Your task to perform on an android device: add a contact in the contacts app Image 0: 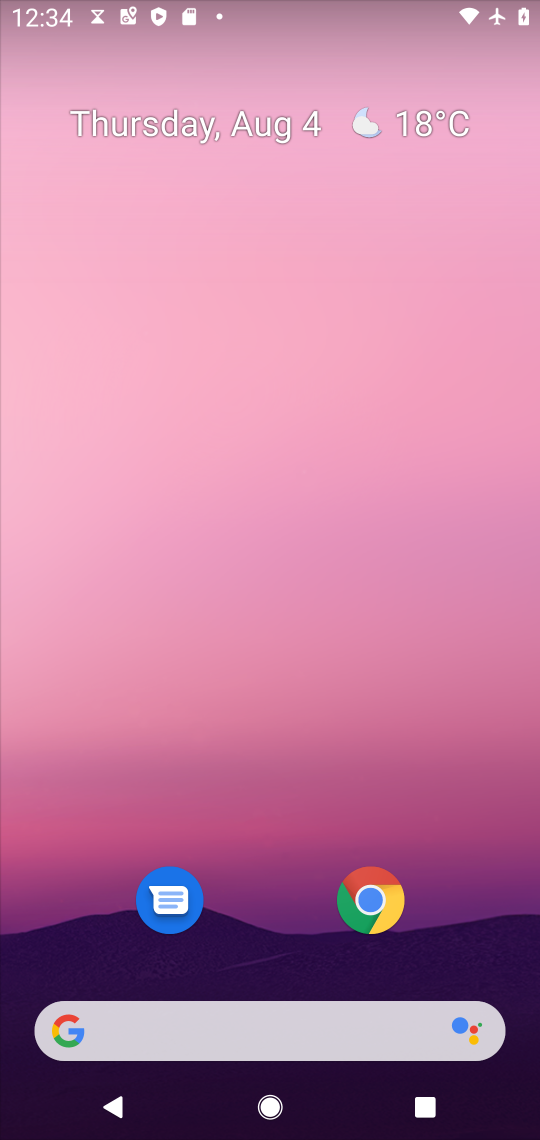
Step 0: press home button
Your task to perform on an android device: add a contact in the contacts app Image 1: 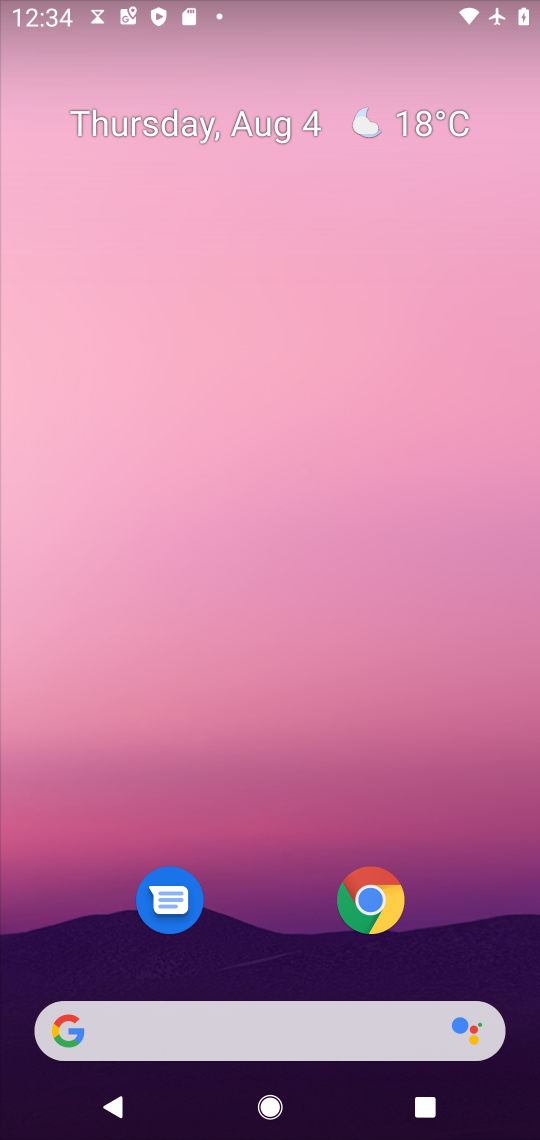
Step 1: drag from (291, 558) to (285, 235)
Your task to perform on an android device: add a contact in the contacts app Image 2: 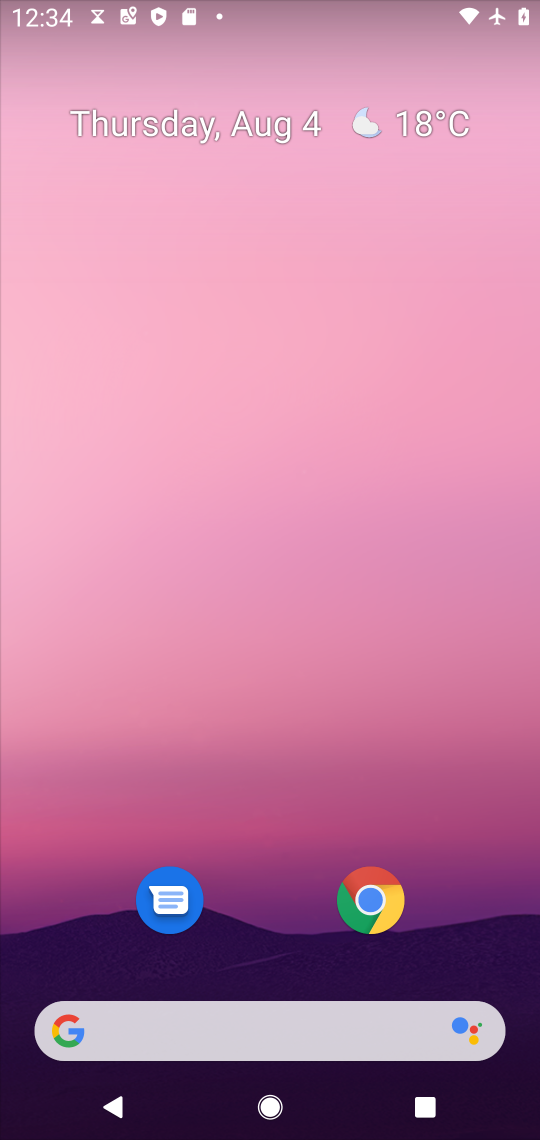
Step 2: drag from (276, 884) to (284, 54)
Your task to perform on an android device: add a contact in the contacts app Image 3: 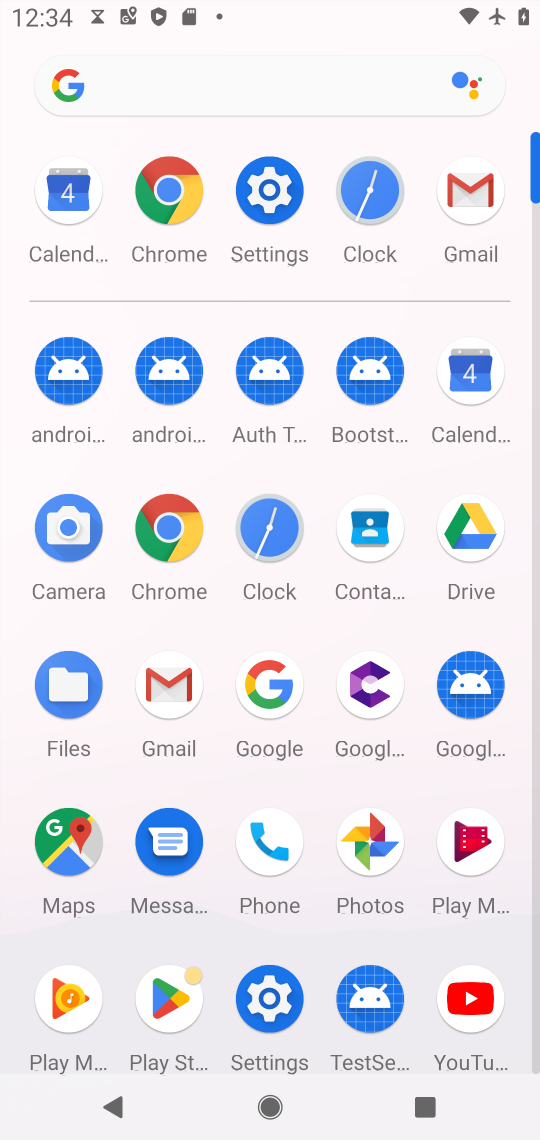
Step 3: click (371, 541)
Your task to perform on an android device: add a contact in the contacts app Image 4: 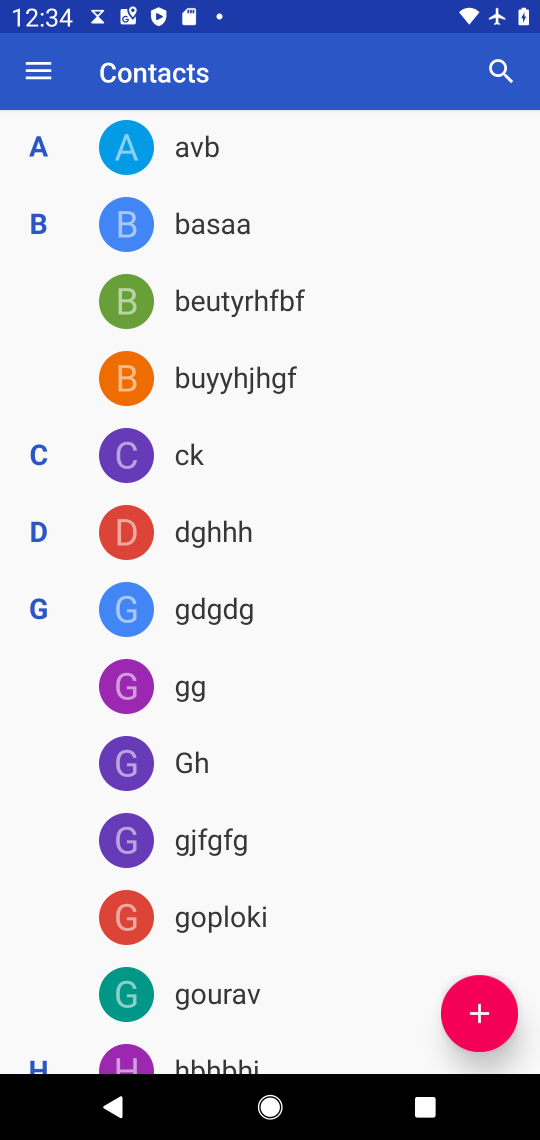
Step 4: click (462, 1030)
Your task to perform on an android device: add a contact in the contacts app Image 5: 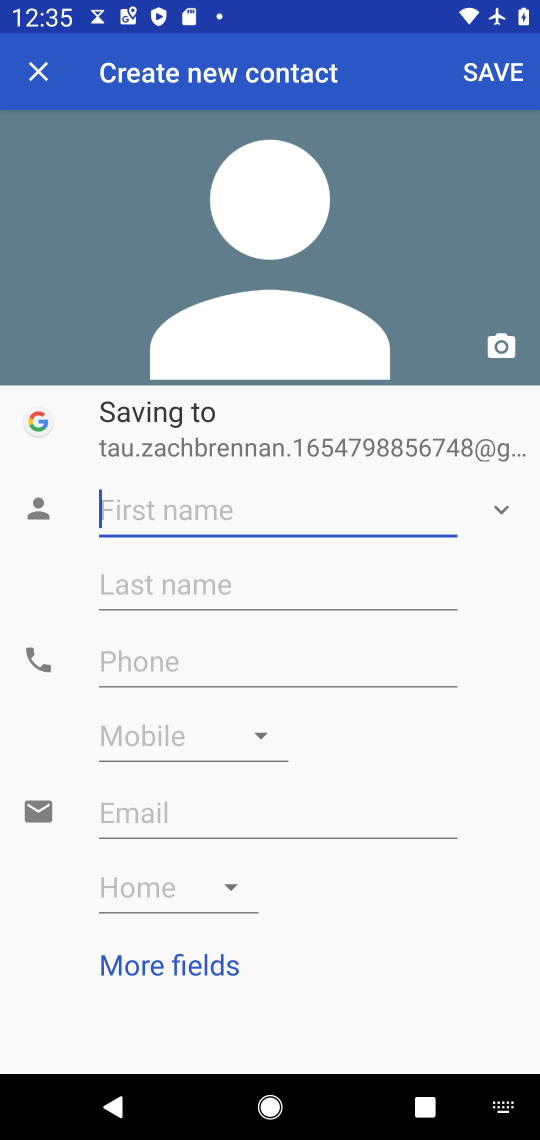
Step 5: type "hjhhhj"
Your task to perform on an android device: add a contact in the contacts app Image 6: 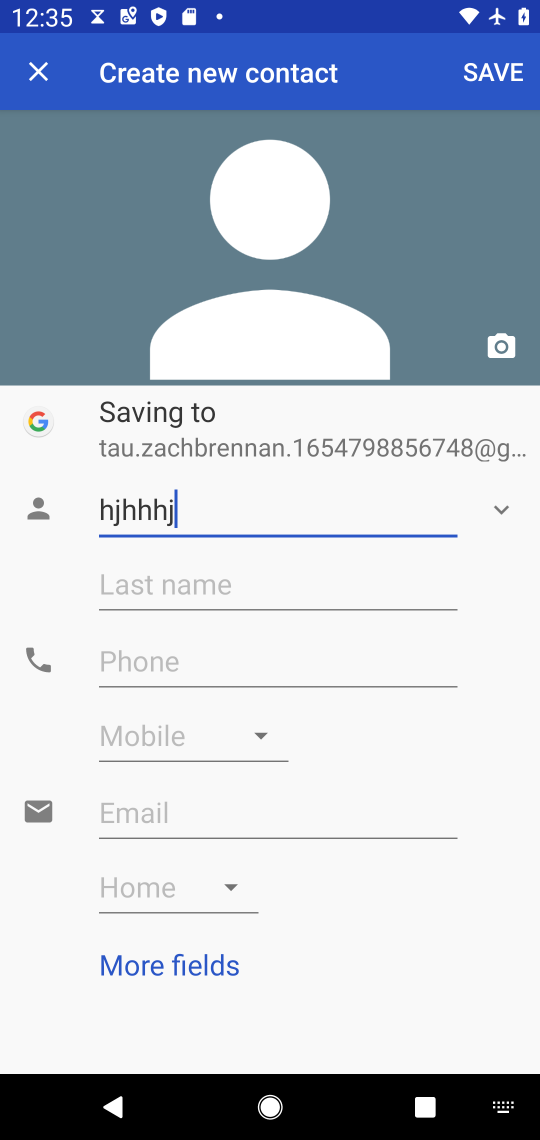
Step 6: click (259, 660)
Your task to perform on an android device: add a contact in the contacts app Image 7: 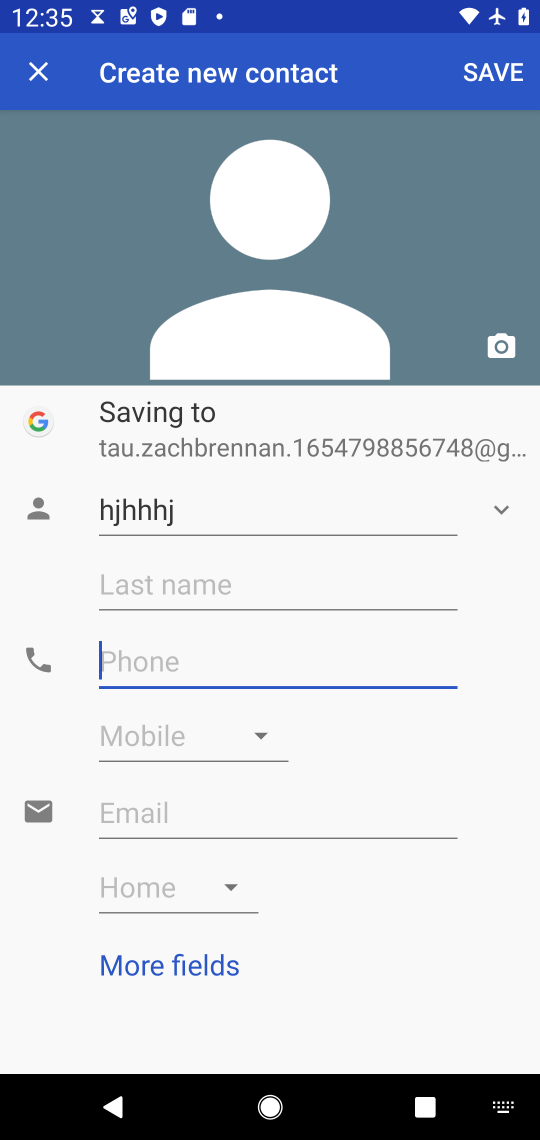
Step 7: type "67666"
Your task to perform on an android device: add a contact in the contacts app Image 8: 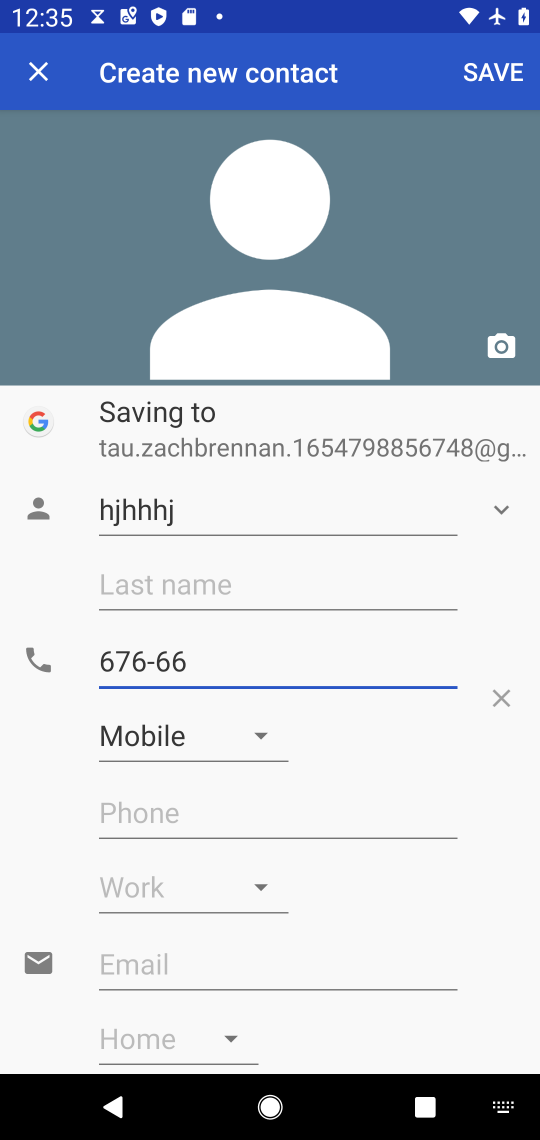
Step 8: click (496, 64)
Your task to perform on an android device: add a contact in the contacts app Image 9: 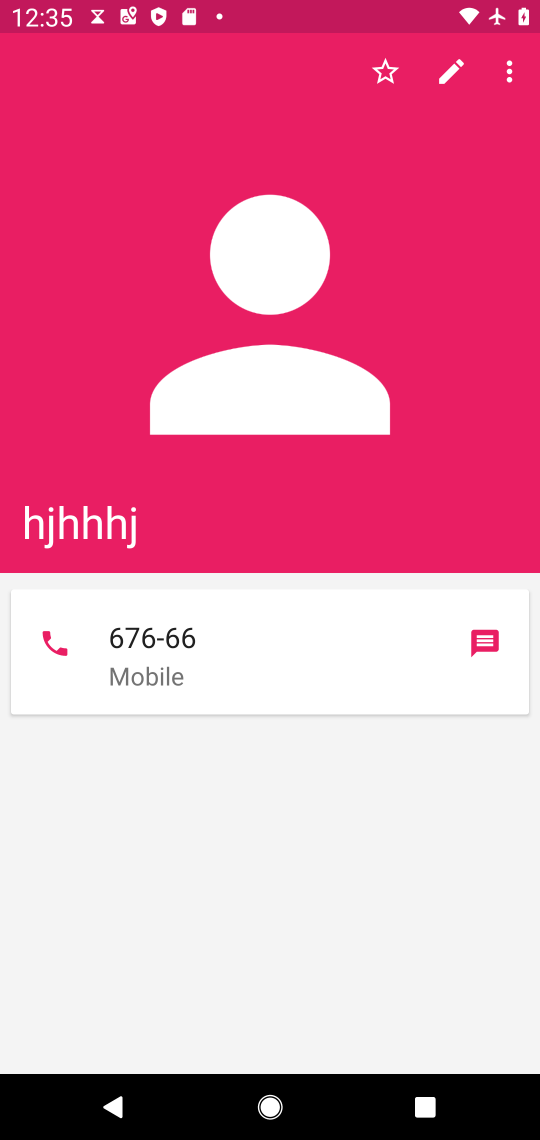
Step 9: task complete